Your task to perform on an android device: change the clock display to analog Image 0: 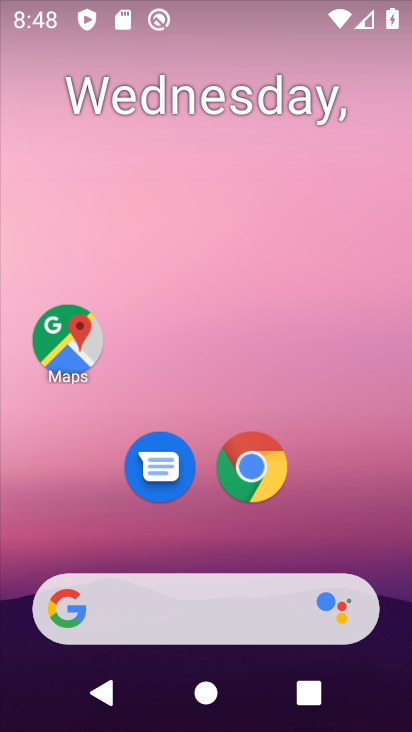
Step 0: drag from (366, 466) to (328, 47)
Your task to perform on an android device: change the clock display to analog Image 1: 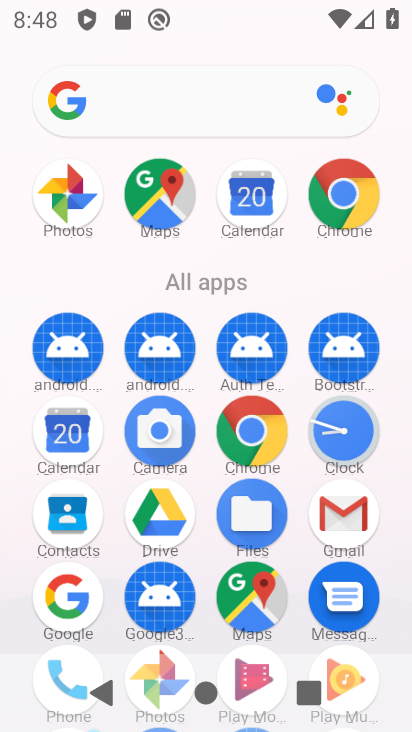
Step 1: click (352, 426)
Your task to perform on an android device: change the clock display to analog Image 2: 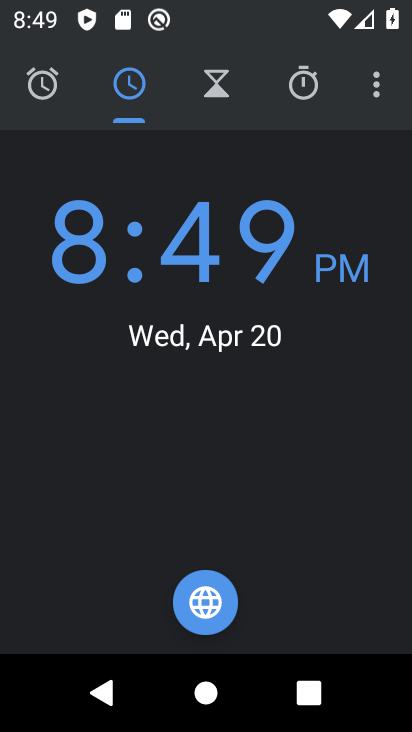
Step 2: click (376, 72)
Your task to perform on an android device: change the clock display to analog Image 3: 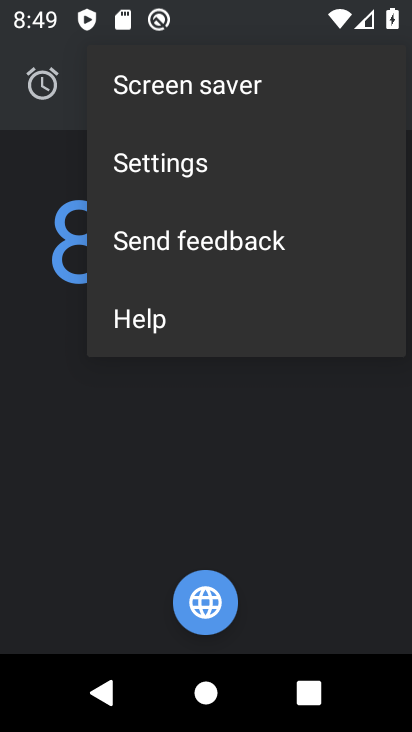
Step 3: click (172, 167)
Your task to perform on an android device: change the clock display to analog Image 4: 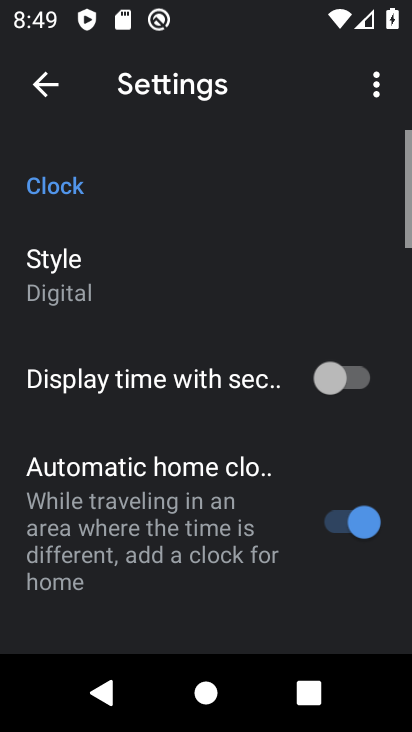
Step 4: click (94, 287)
Your task to perform on an android device: change the clock display to analog Image 5: 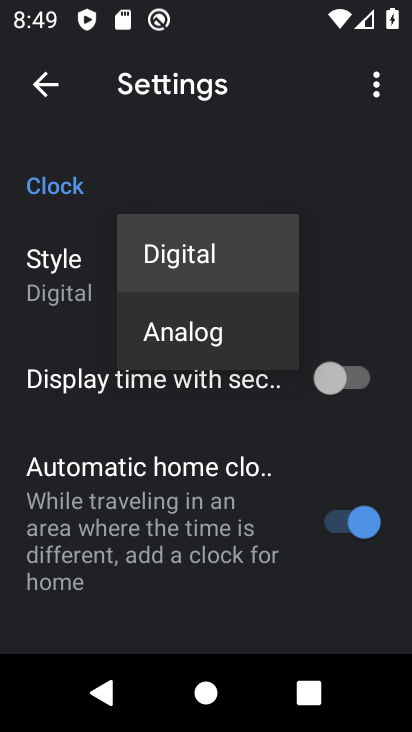
Step 5: click (183, 371)
Your task to perform on an android device: change the clock display to analog Image 6: 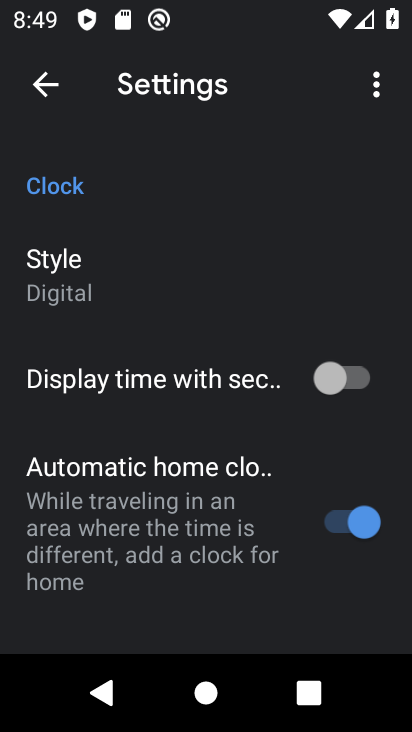
Step 6: click (55, 269)
Your task to perform on an android device: change the clock display to analog Image 7: 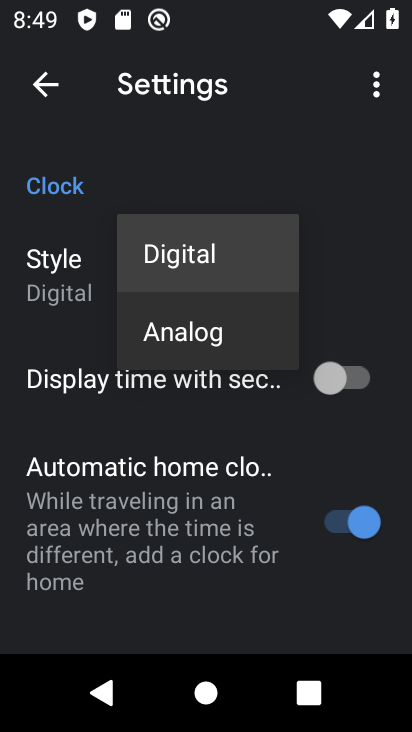
Step 7: click (220, 340)
Your task to perform on an android device: change the clock display to analog Image 8: 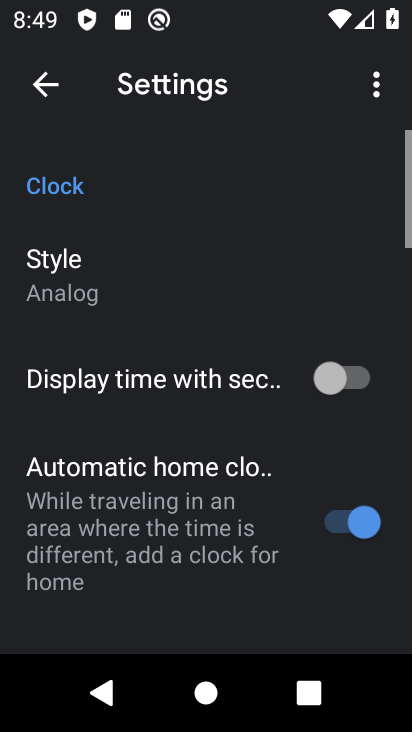
Step 8: task complete